Your task to perform on an android device: Search for pizza restaurants on Maps Image 0: 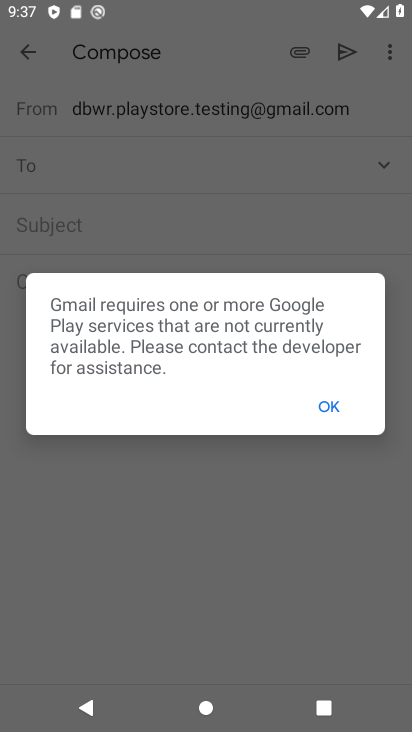
Step 0: press home button
Your task to perform on an android device: Search for pizza restaurants on Maps Image 1: 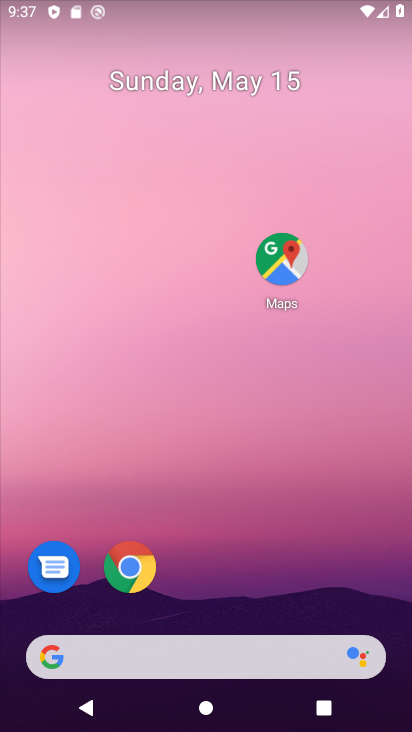
Step 1: click (278, 252)
Your task to perform on an android device: Search for pizza restaurants on Maps Image 2: 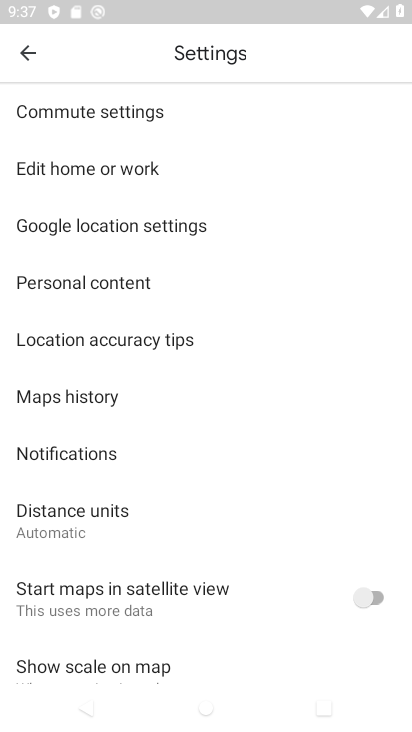
Step 2: press back button
Your task to perform on an android device: Search for pizza restaurants on Maps Image 3: 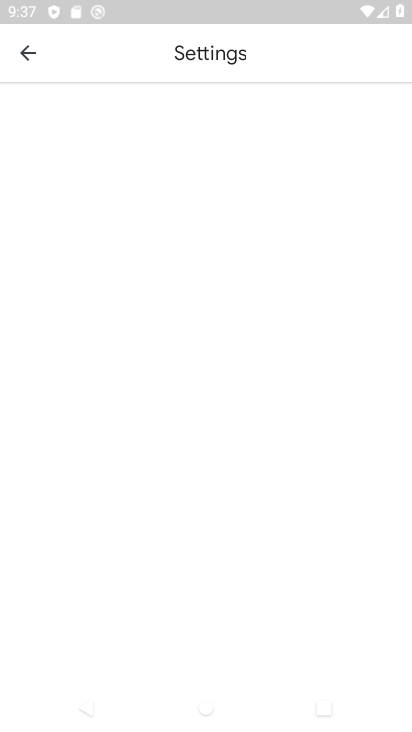
Step 3: press back button
Your task to perform on an android device: Search for pizza restaurants on Maps Image 4: 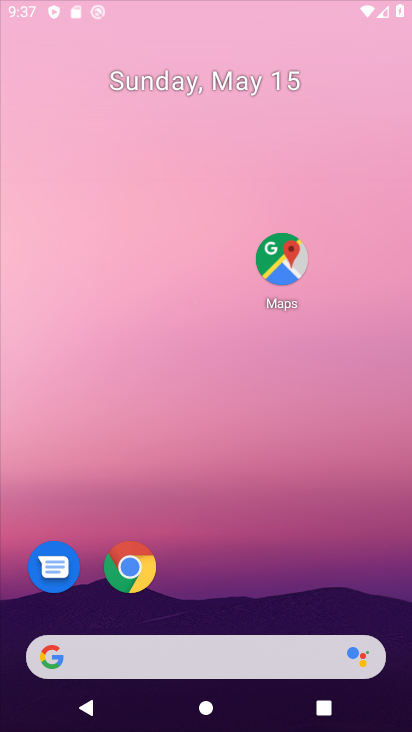
Step 4: drag from (177, 57) to (222, 205)
Your task to perform on an android device: Search for pizza restaurants on Maps Image 5: 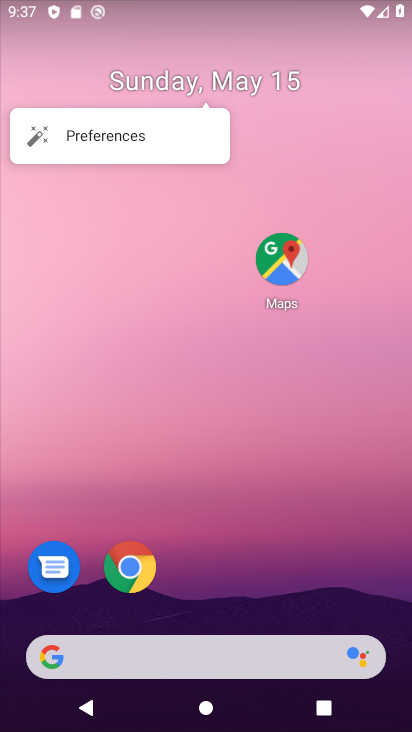
Step 5: click (279, 248)
Your task to perform on an android device: Search for pizza restaurants on Maps Image 6: 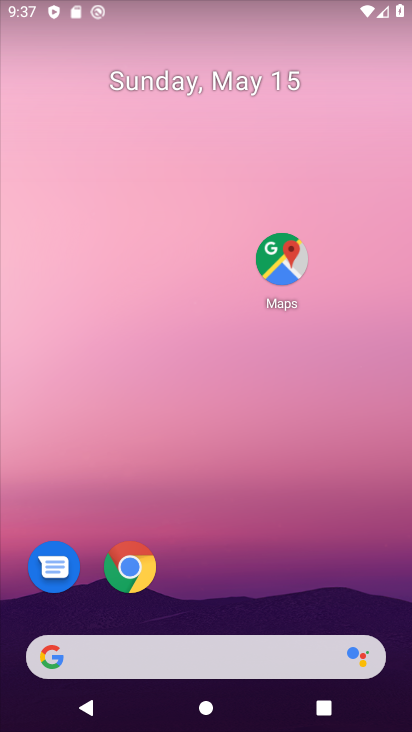
Step 6: click (285, 257)
Your task to perform on an android device: Search for pizza restaurants on Maps Image 7: 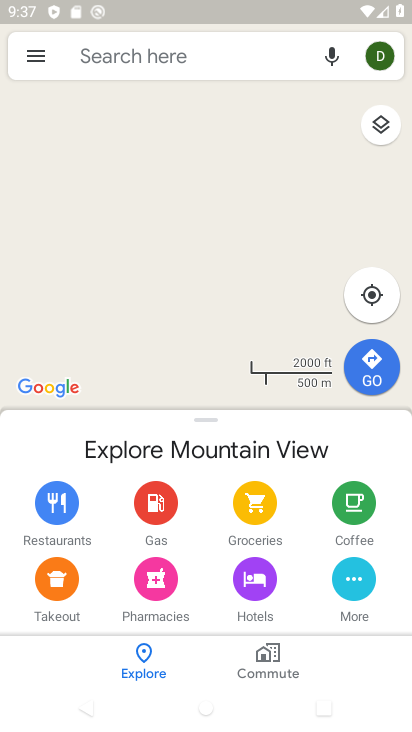
Step 7: click (186, 63)
Your task to perform on an android device: Search for pizza restaurants on Maps Image 8: 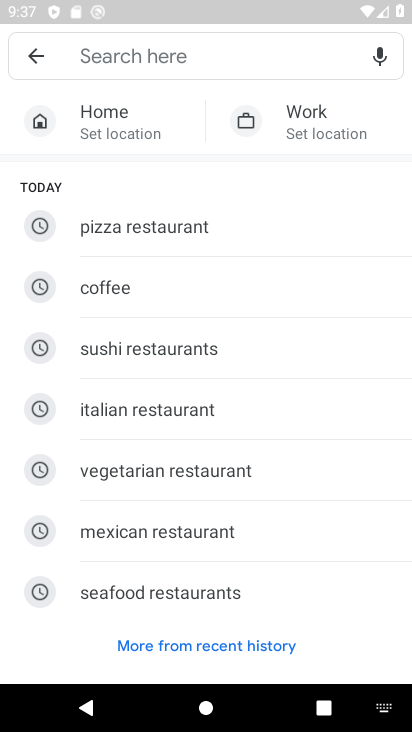
Step 8: click (186, 225)
Your task to perform on an android device: Search for pizza restaurants on Maps Image 9: 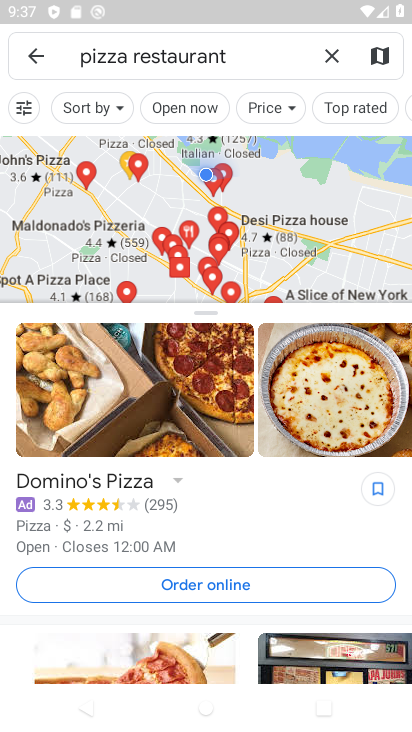
Step 9: task complete